Your task to perform on an android device: Go to Yahoo.com Image 0: 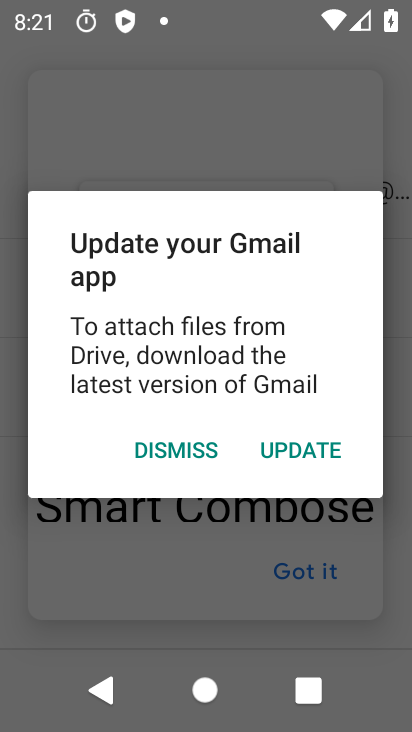
Step 0: press home button
Your task to perform on an android device: Go to Yahoo.com Image 1: 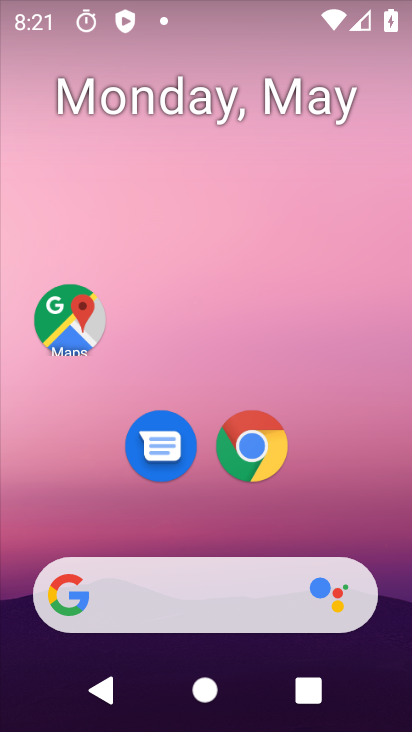
Step 1: click (250, 456)
Your task to perform on an android device: Go to Yahoo.com Image 2: 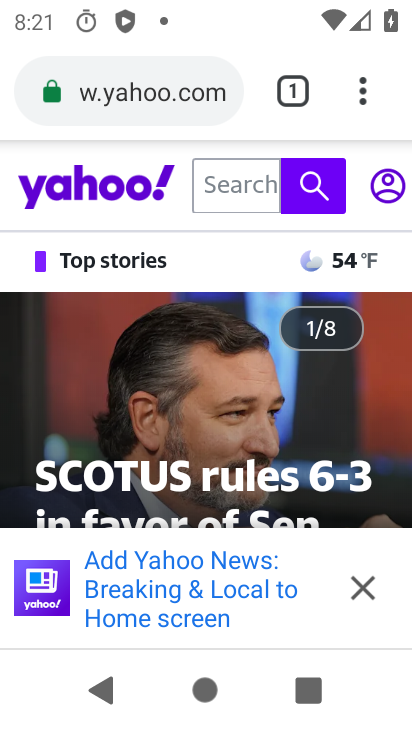
Step 2: task complete